Your task to perform on an android device: open device folders in google photos Image 0: 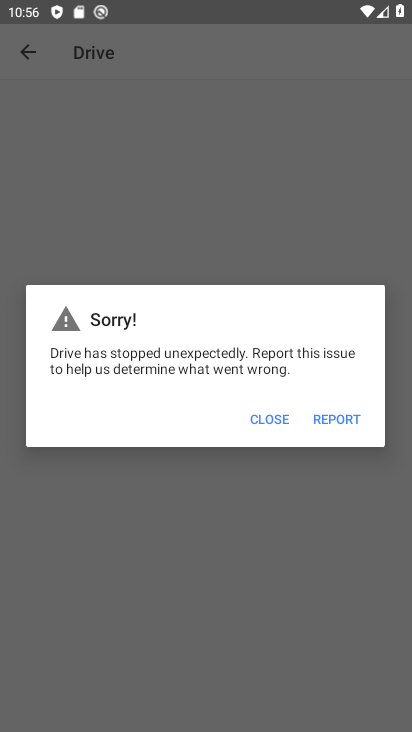
Step 0: press home button
Your task to perform on an android device: open device folders in google photos Image 1: 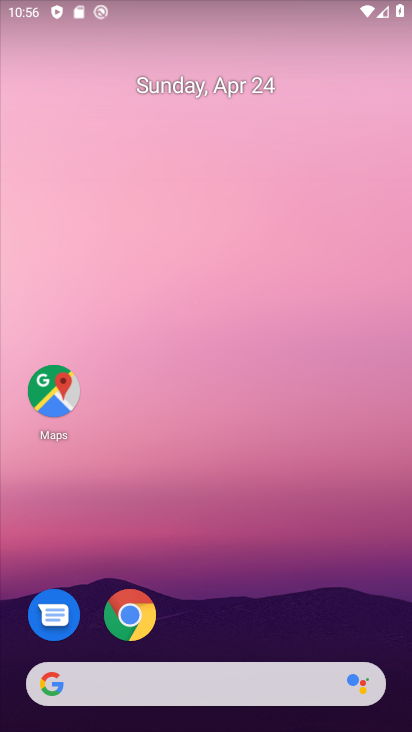
Step 1: drag from (204, 618) to (216, 71)
Your task to perform on an android device: open device folders in google photos Image 2: 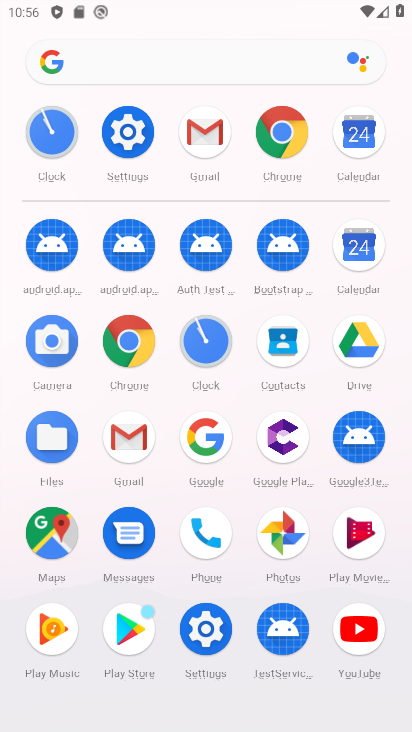
Step 2: click (283, 531)
Your task to perform on an android device: open device folders in google photos Image 3: 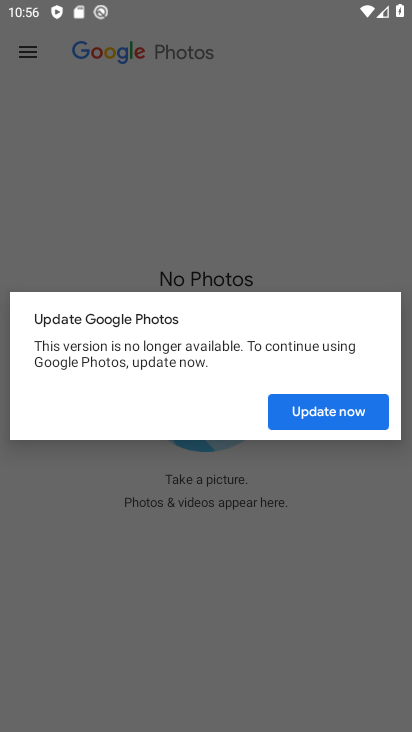
Step 3: click (331, 409)
Your task to perform on an android device: open device folders in google photos Image 4: 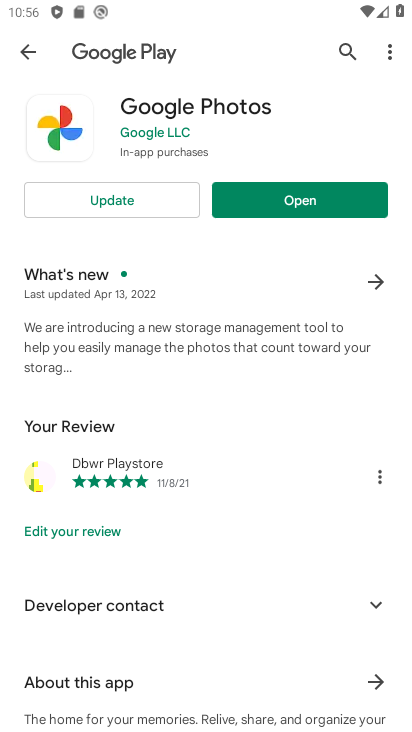
Step 4: click (111, 198)
Your task to perform on an android device: open device folders in google photos Image 5: 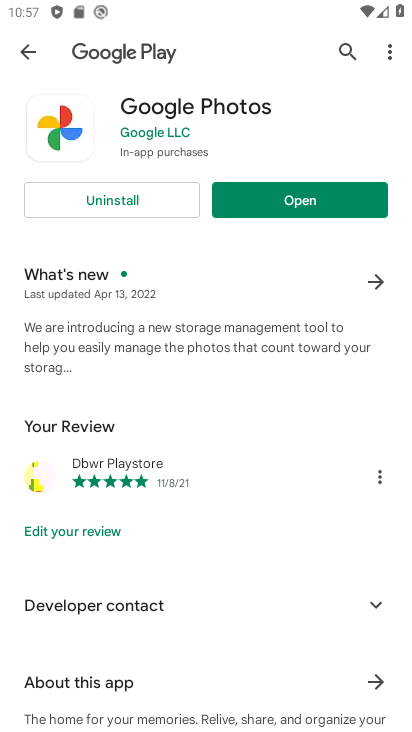
Step 5: click (277, 200)
Your task to perform on an android device: open device folders in google photos Image 6: 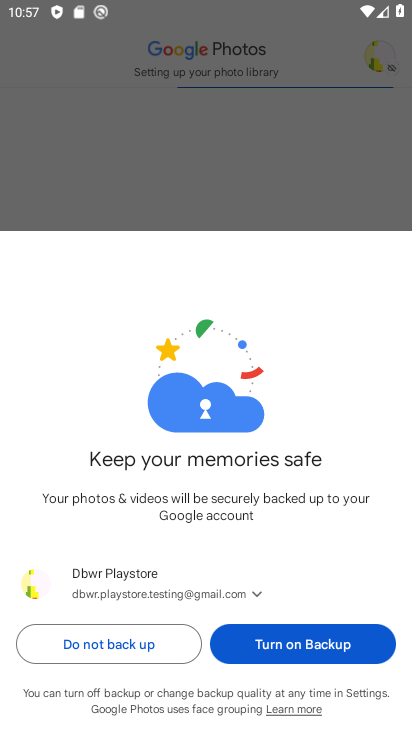
Step 6: click (285, 655)
Your task to perform on an android device: open device folders in google photos Image 7: 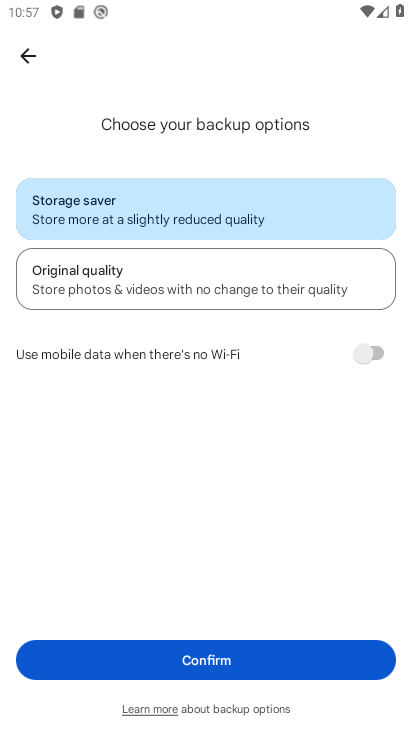
Step 7: click (217, 646)
Your task to perform on an android device: open device folders in google photos Image 8: 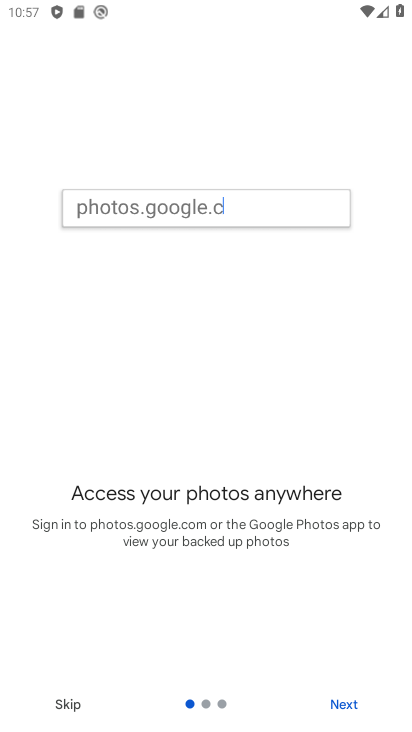
Step 8: click (344, 706)
Your task to perform on an android device: open device folders in google photos Image 9: 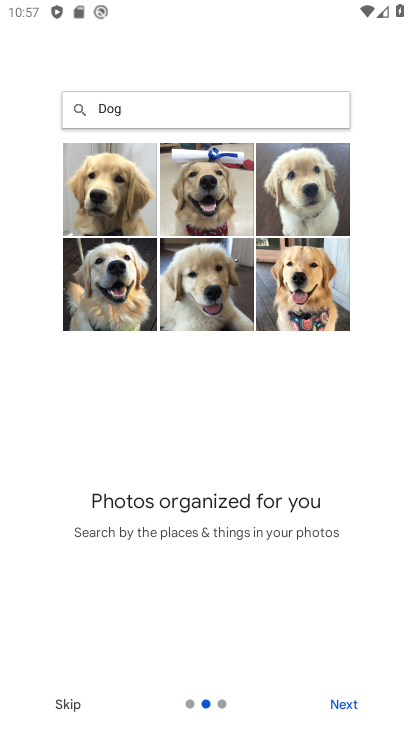
Step 9: click (347, 704)
Your task to perform on an android device: open device folders in google photos Image 10: 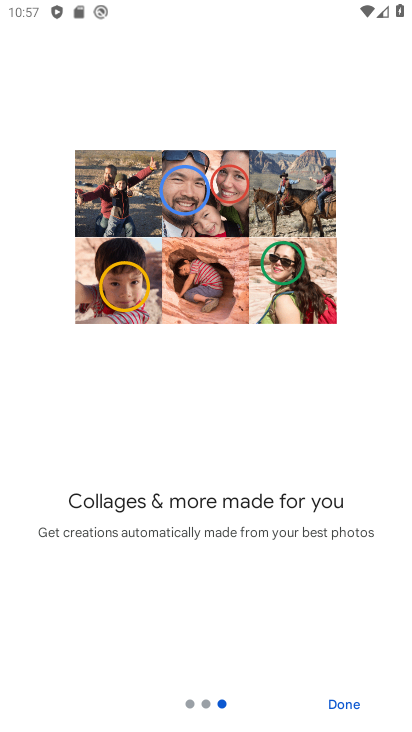
Step 10: click (342, 695)
Your task to perform on an android device: open device folders in google photos Image 11: 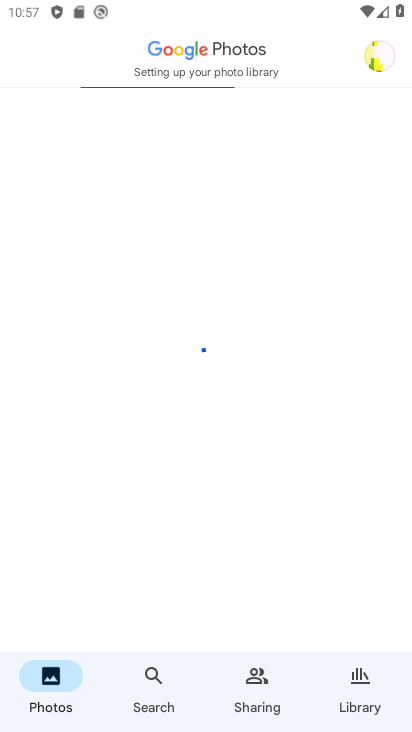
Step 11: click (147, 688)
Your task to perform on an android device: open device folders in google photos Image 12: 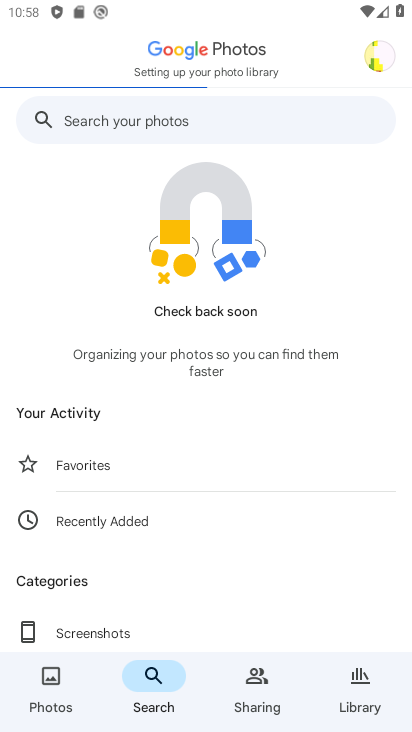
Step 12: click (144, 103)
Your task to perform on an android device: open device folders in google photos Image 13: 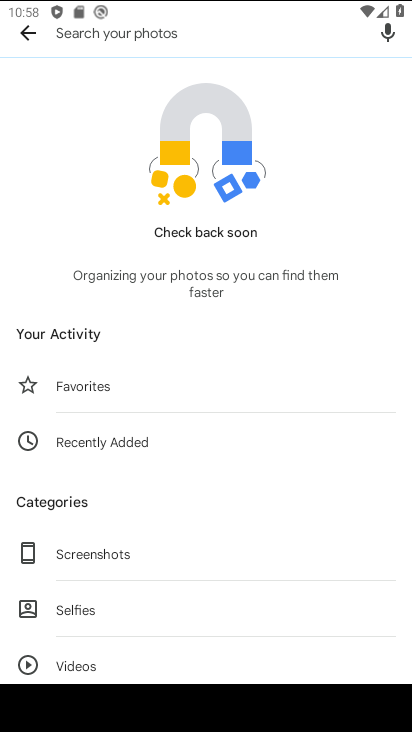
Step 13: type "device"
Your task to perform on an android device: open device folders in google photos Image 14: 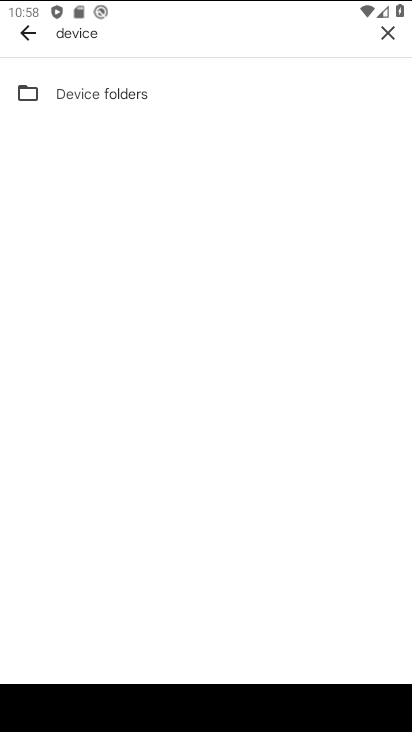
Step 14: click (116, 78)
Your task to perform on an android device: open device folders in google photos Image 15: 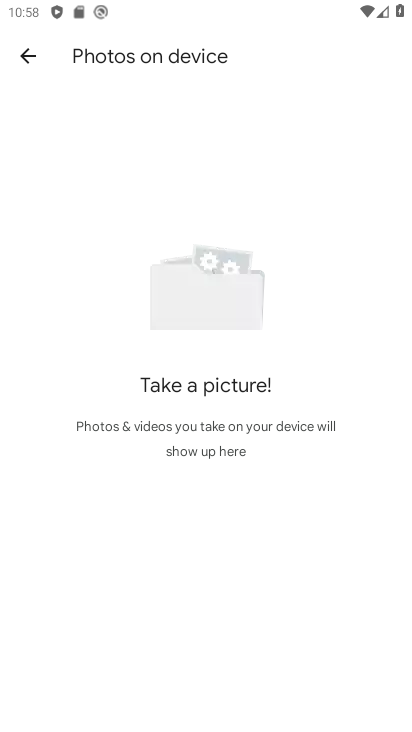
Step 15: task complete